Your task to perform on an android device: Is it going to rain today? Image 0: 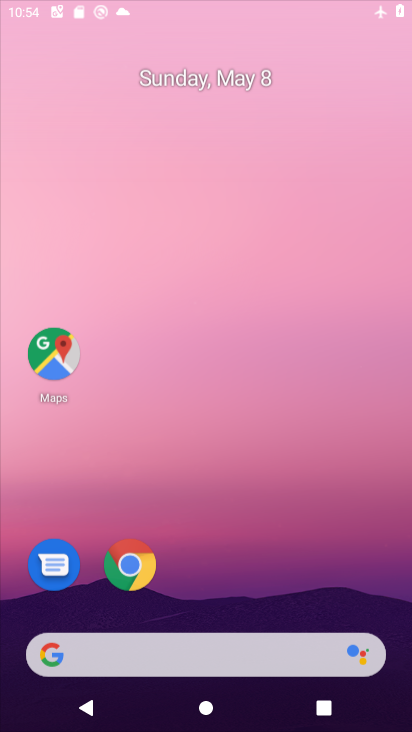
Step 0: drag from (271, 579) to (256, 64)
Your task to perform on an android device: Is it going to rain today? Image 1: 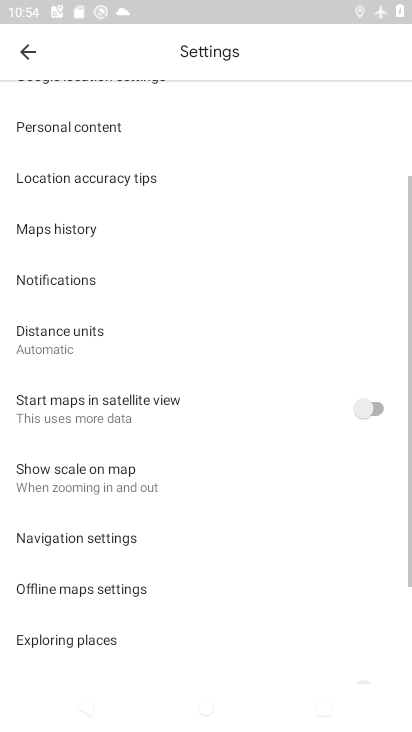
Step 1: press home button
Your task to perform on an android device: Is it going to rain today? Image 2: 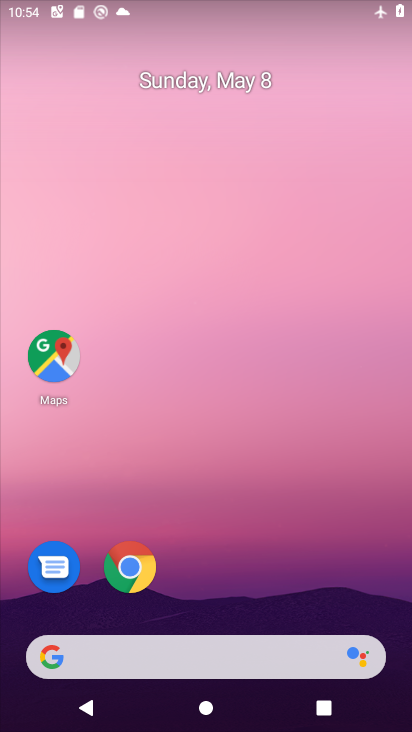
Step 2: drag from (225, 610) to (206, 215)
Your task to perform on an android device: Is it going to rain today? Image 3: 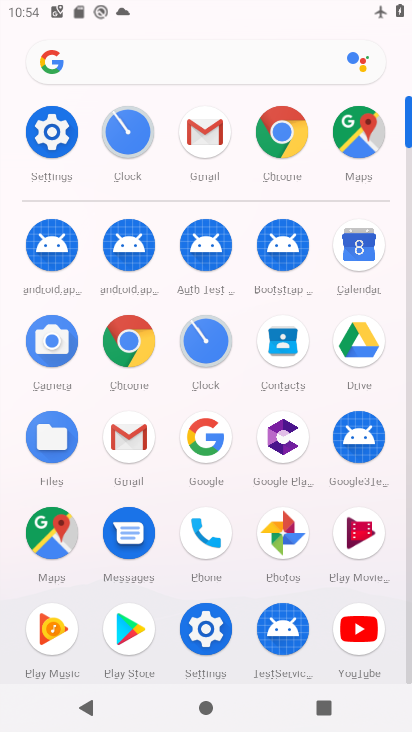
Step 3: drag from (280, 170) to (233, 230)
Your task to perform on an android device: Is it going to rain today? Image 4: 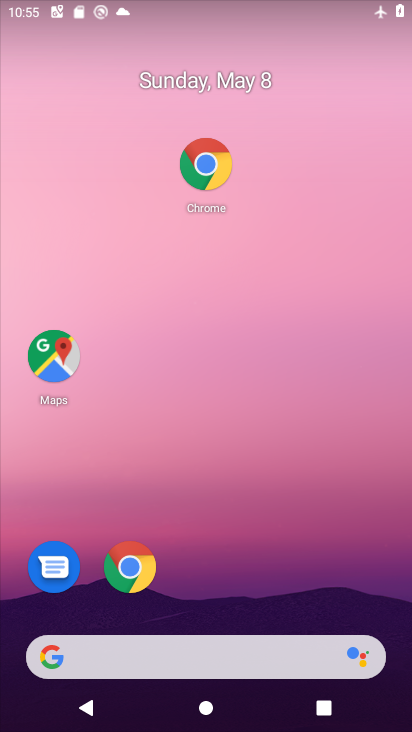
Step 4: drag from (205, 197) to (215, 39)
Your task to perform on an android device: Is it going to rain today? Image 5: 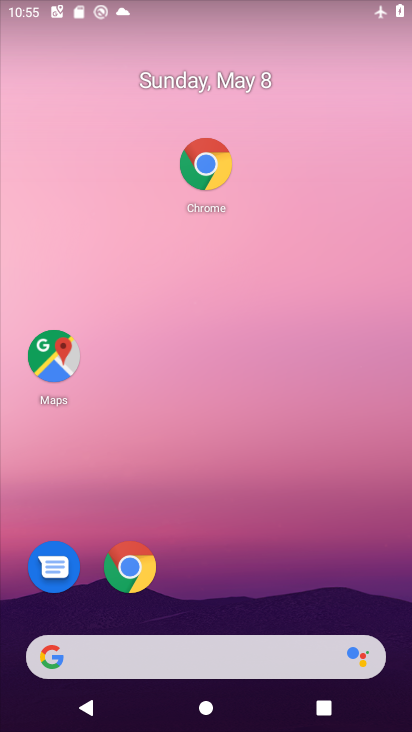
Step 5: drag from (205, 201) to (210, 52)
Your task to perform on an android device: Is it going to rain today? Image 6: 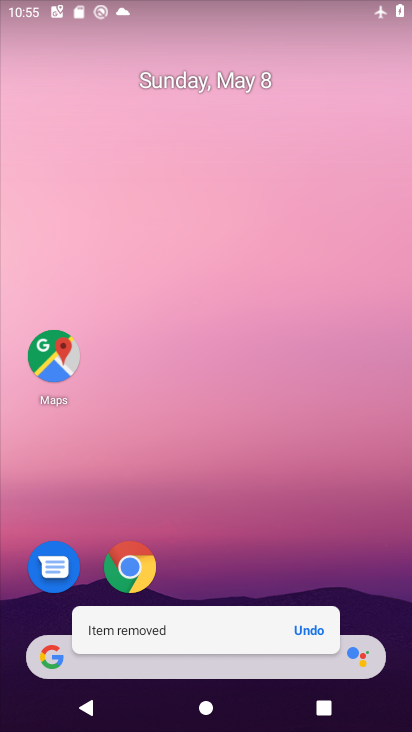
Step 6: click (124, 580)
Your task to perform on an android device: Is it going to rain today? Image 7: 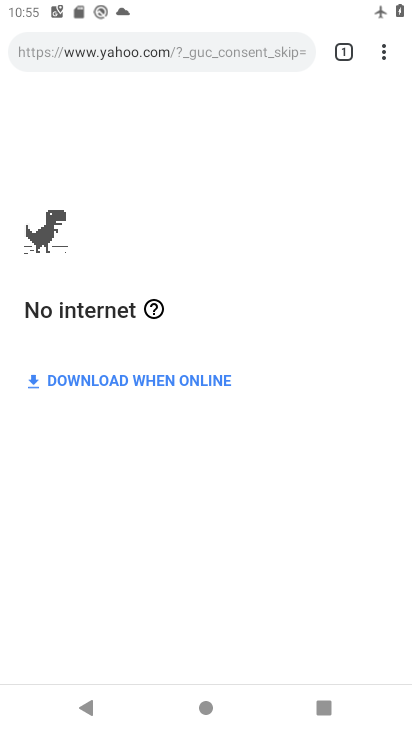
Step 7: press home button
Your task to perform on an android device: Is it going to rain today? Image 8: 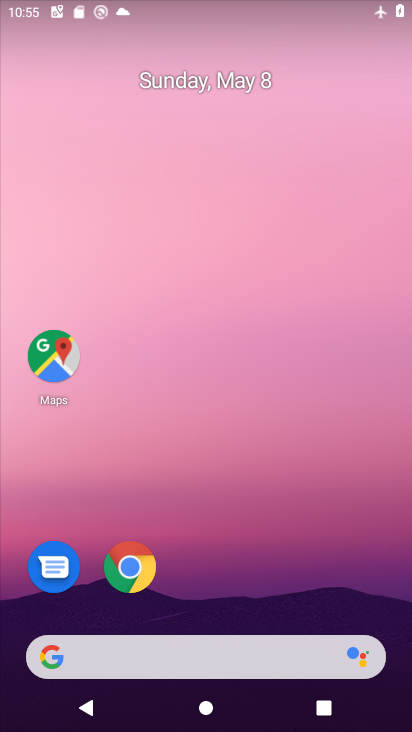
Step 8: drag from (214, 539) to (234, 277)
Your task to perform on an android device: Is it going to rain today? Image 9: 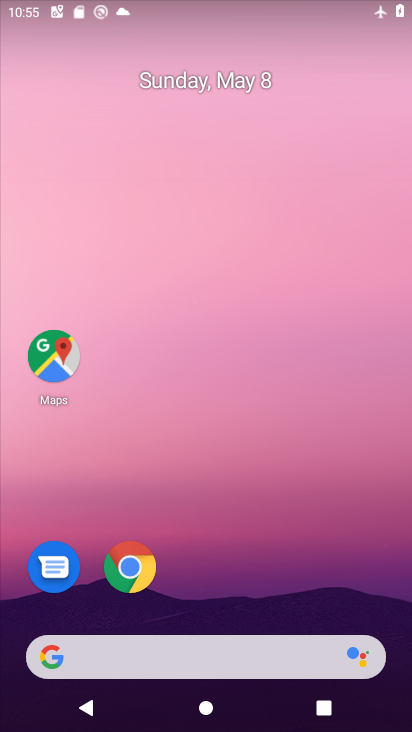
Step 9: drag from (246, 588) to (197, 108)
Your task to perform on an android device: Is it going to rain today? Image 10: 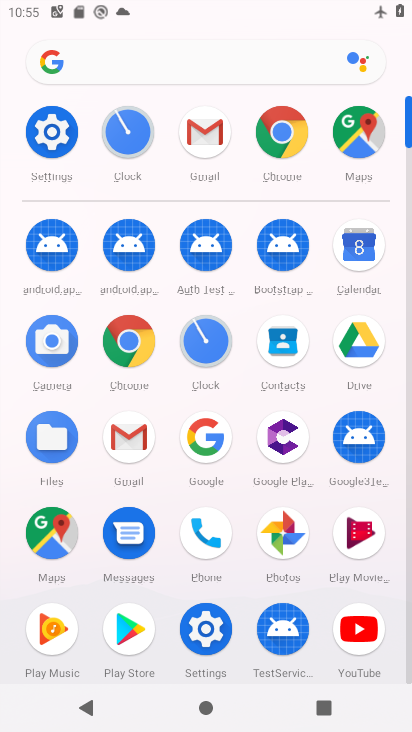
Step 10: click (205, 456)
Your task to perform on an android device: Is it going to rain today? Image 11: 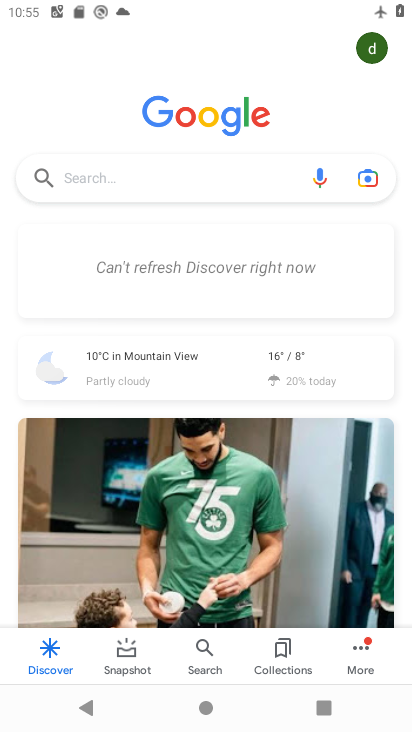
Step 11: click (116, 175)
Your task to perform on an android device: Is it going to rain today? Image 12: 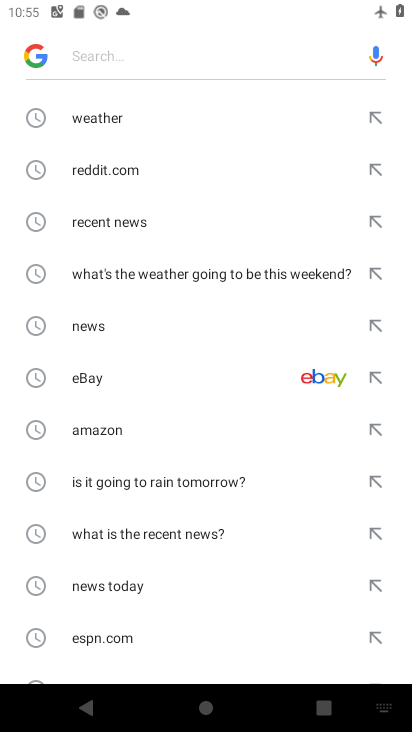
Step 12: click (93, 123)
Your task to perform on an android device: Is it going to rain today? Image 13: 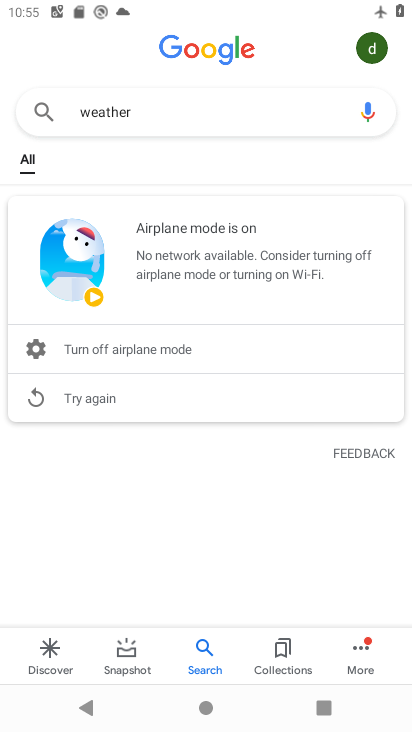
Step 13: task complete